Your task to perform on an android device: turn vacation reply on in the gmail app Image 0: 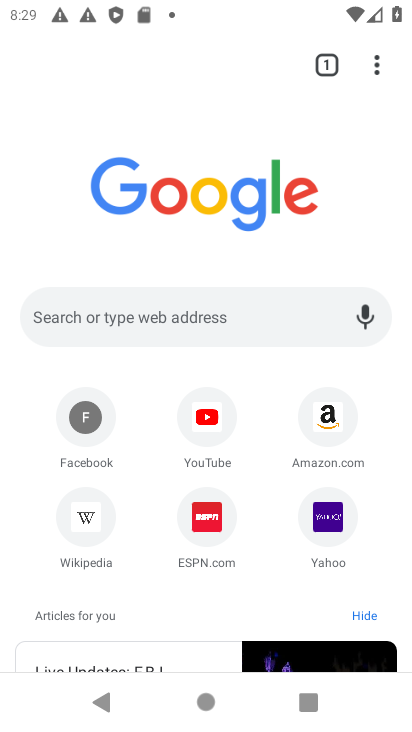
Step 0: press home button
Your task to perform on an android device: turn vacation reply on in the gmail app Image 1: 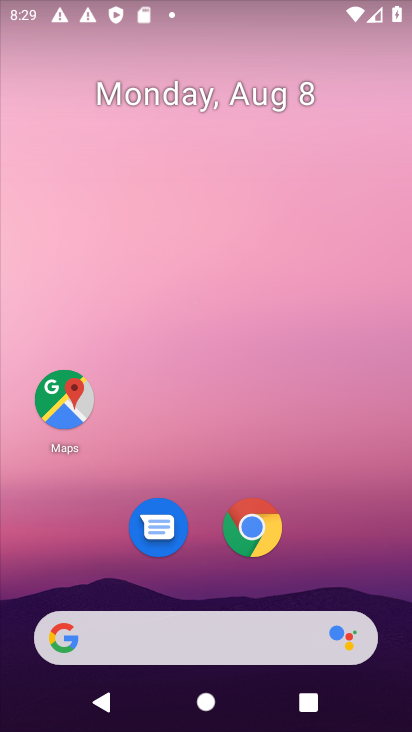
Step 1: drag from (380, 701) to (77, 51)
Your task to perform on an android device: turn vacation reply on in the gmail app Image 2: 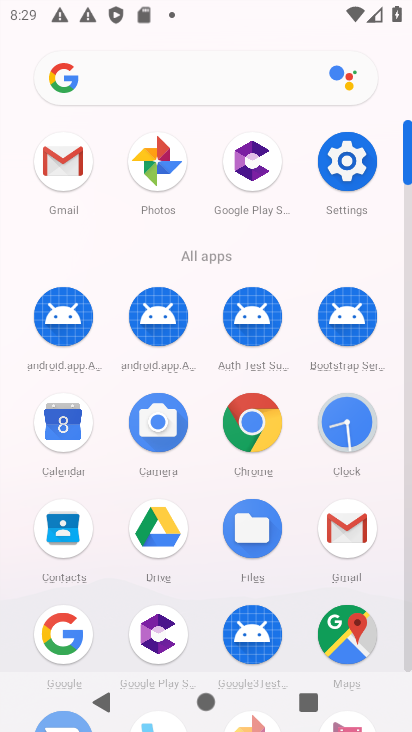
Step 2: click (351, 522)
Your task to perform on an android device: turn vacation reply on in the gmail app Image 3: 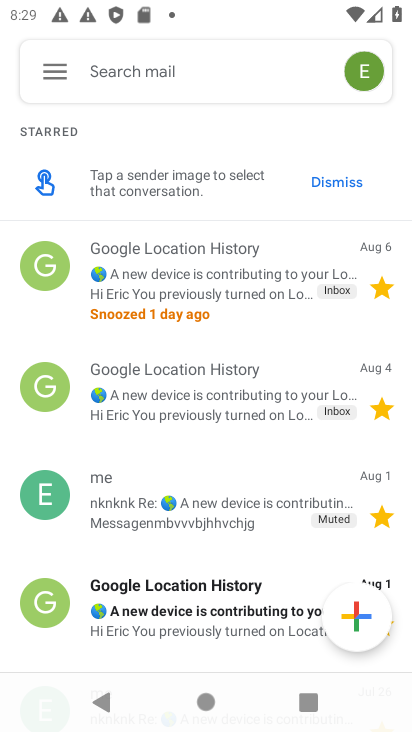
Step 3: click (56, 64)
Your task to perform on an android device: turn vacation reply on in the gmail app Image 4: 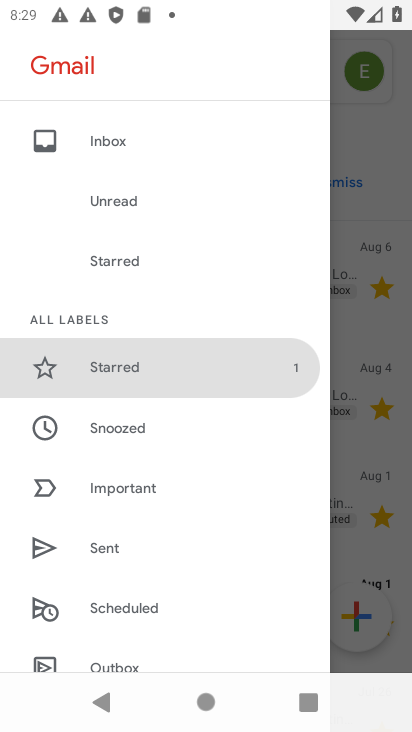
Step 4: drag from (228, 619) to (78, 75)
Your task to perform on an android device: turn vacation reply on in the gmail app Image 5: 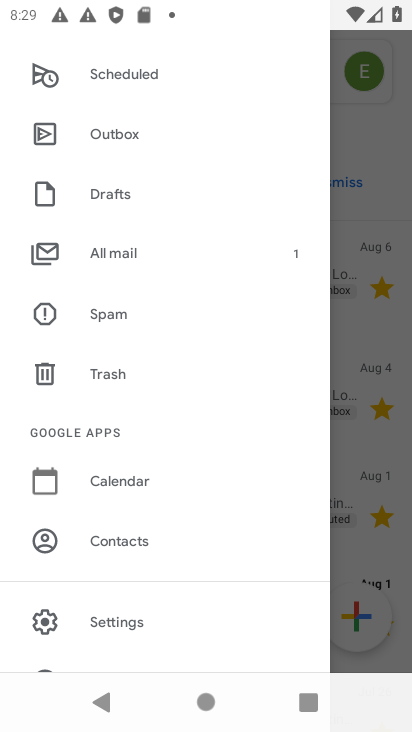
Step 5: click (95, 621)
Your task to perform on an android device: turn vacation reply on in the gmail app Image 6: 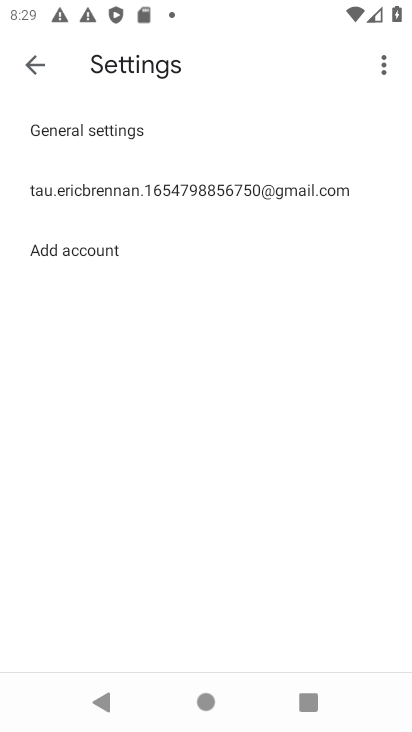
Step 6: click (108, 185)
Your task to perform on an android device: turn vacation reply on in the gmail app Image 7: 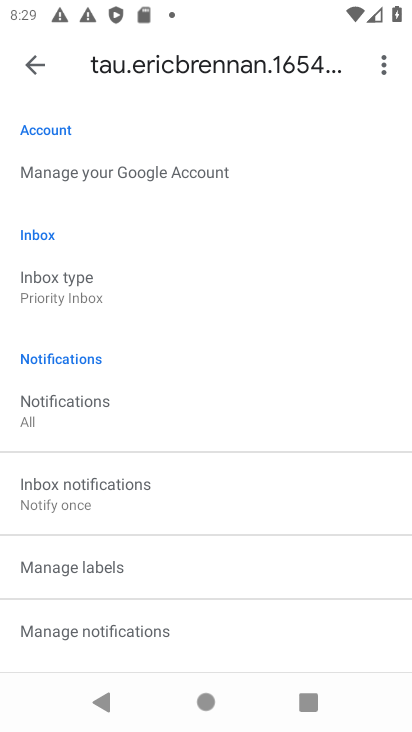
Step 7: drag from (273, 640) to (140, 248)
Your task to perform on an android device: turn vacation reply on in the gmail app Image 8: 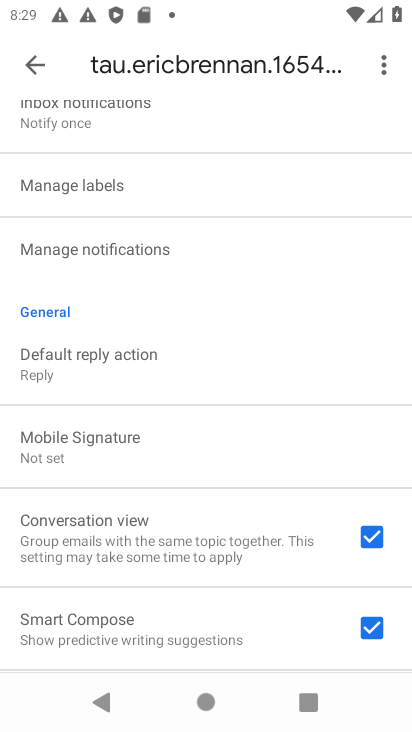
Step 8: drag from (278, 633) to (212, 391)
Your task to perform on an android device: turn vacation reply on in the gmail app Image 9: 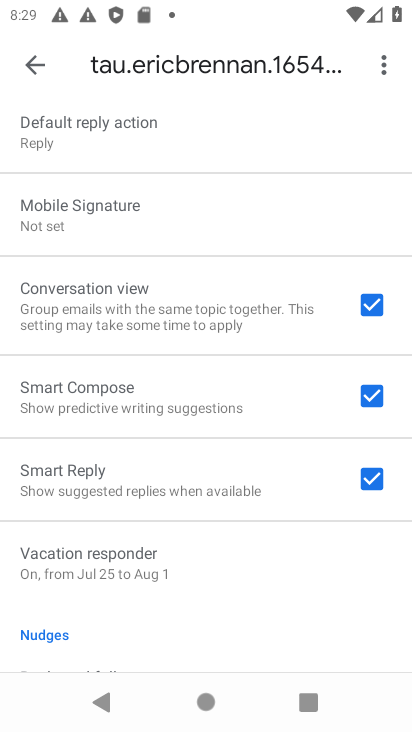
Step 9: click (109, 550)
Your task to perform on an android device: turn vacation reply on in the gmail app Image 10: 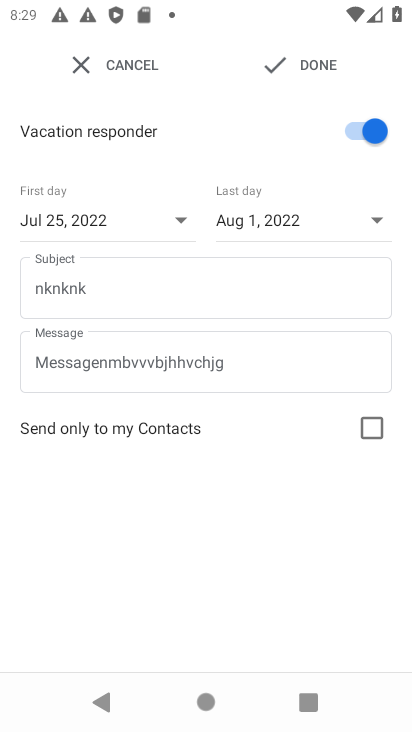
Step 10: task complete